Your task to perform on an android device: When is my next appointment? Image 0: 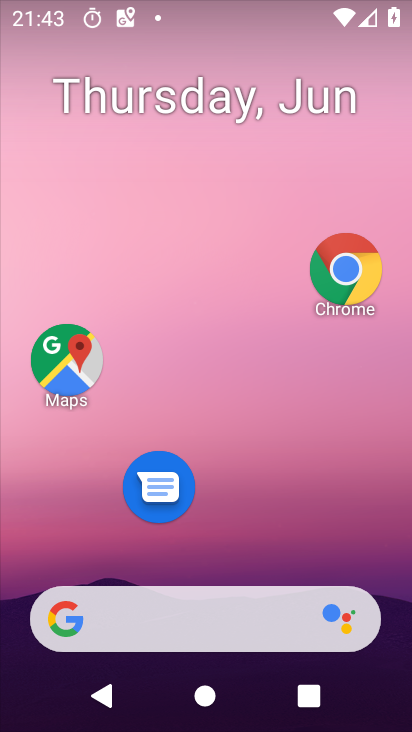
Step 0: drag from (227, 512) to (241, 2)
Your task to perform on an android device: When is my next appointment? Image 1: 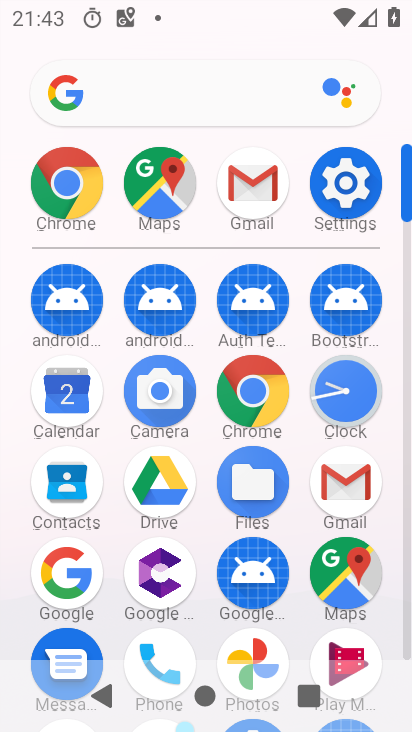
Step 1: click (69, 381)
Your task to perform on an android device: When is my next appointment? Image 2: 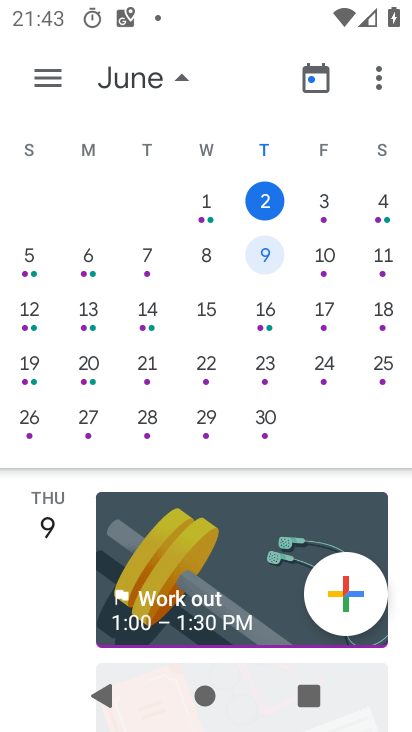
Step 2: drag from (228, 444) to (247, 30)
Your task to perform on an android device: When is my next appointment? Image 3: 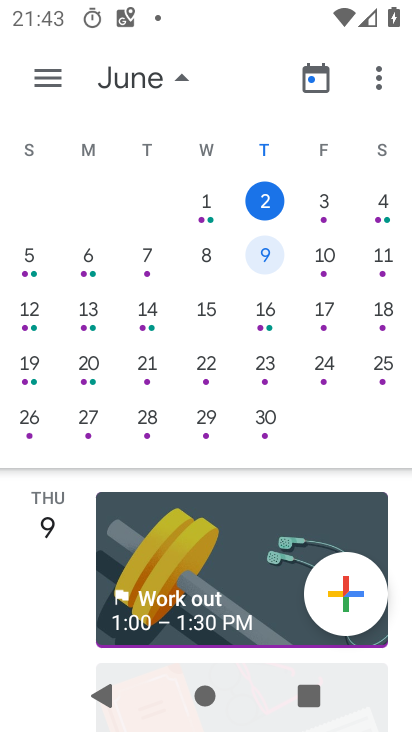
Step 3: drag from (221, 565) to (248, 414)
Your task to perform on an android device: When is my next appointment? Image 4: 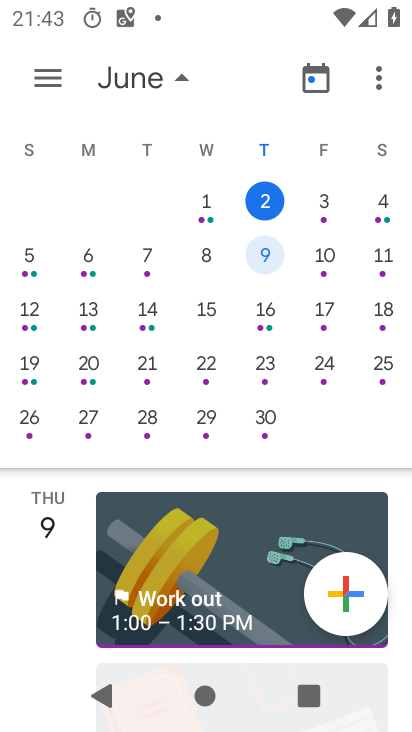
Step 4: drag from (258, 239) to (253, 388)
Your task to perform on an android device: When is my next appointment? Image 5: 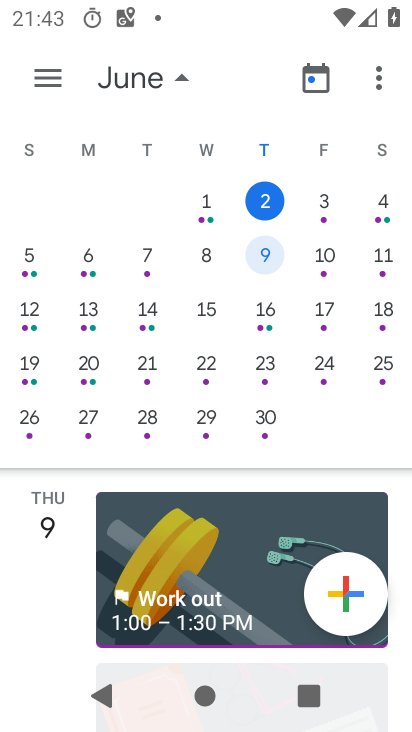
Step 5: click (258, 213)
Your task to perform on an android device: When is my next appointment? Image 6: 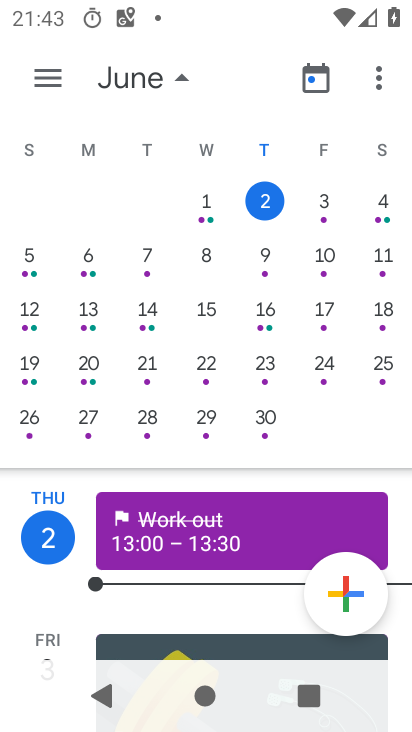
Step 6: drag from (246, 526) to (400, 61)
Your task to perform on an android device: When is my next appointment? Image 7: 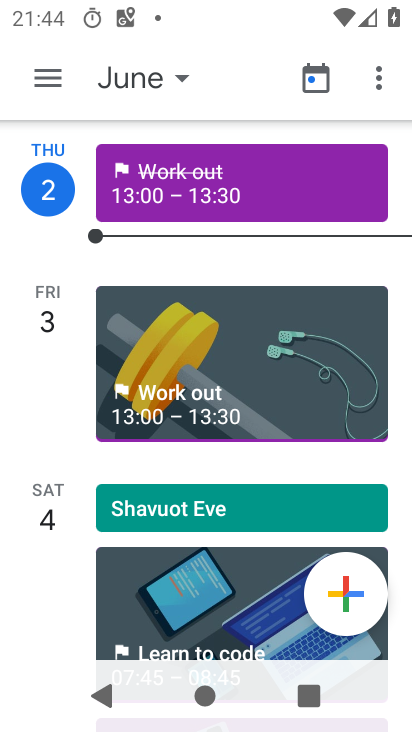
Step 7: click (275, 205)
Your task to perform on an android device: When is my next appointment? Image 8: 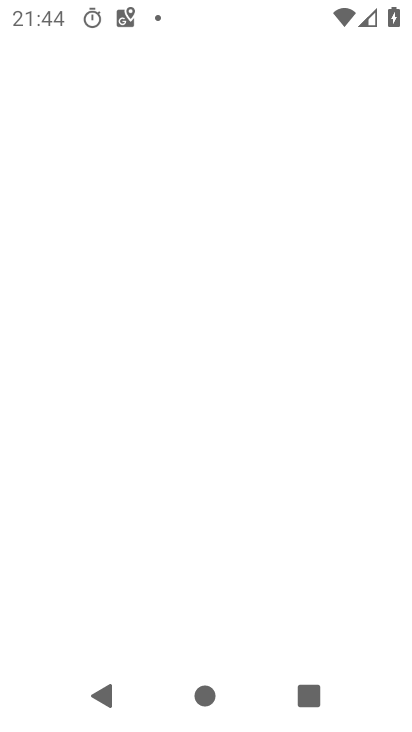
Step 8: task complete